Your task to perform on an android device: Set the phone to "Do not disturb". Image 0: 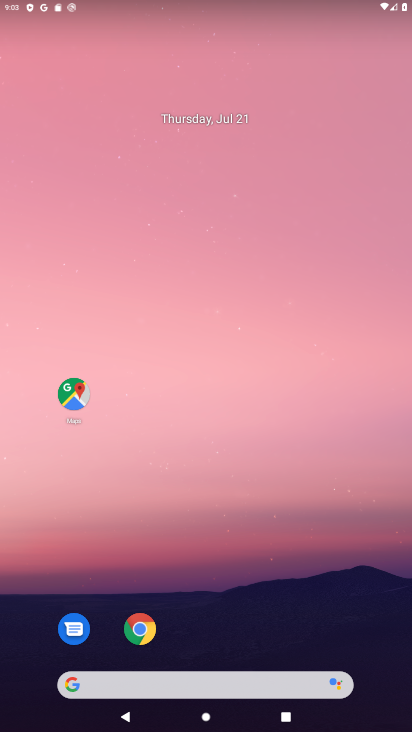
Step 0: drag from (246, 510) to (163, 154)
Your task to perform on an android device: Set the phone to "Do not disturb". Image 1: 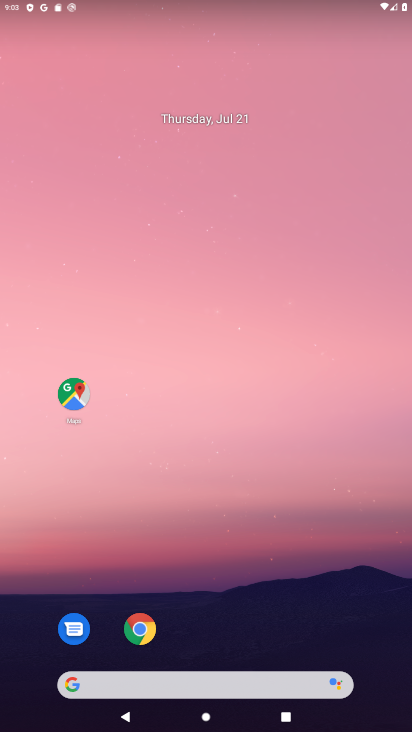
Step 1: drag from (204, 513) to (135, 106)
Your task to perform on an android device: Set the phone to "Do not disturb". Image 2: 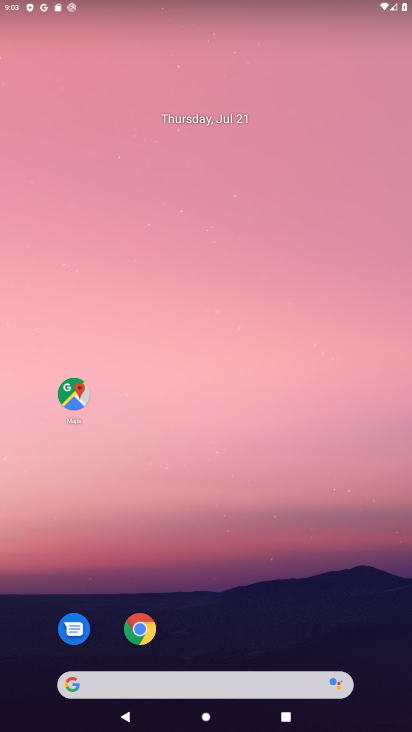
Step 2: drag from (216, 494) to (170, 49)
Your task to perform on an android device: Set the phone to "Do not disturb". Image 3: 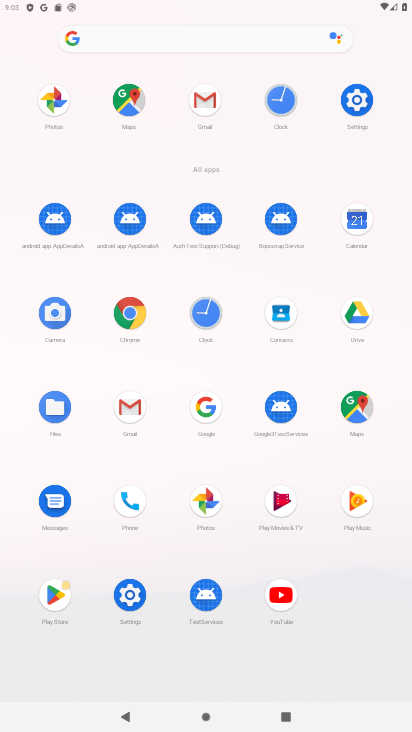
Step 3: drag from (172, 499) to (213, 73)
Your task to perform on an android device: Set the phone to "Do not disturb". Image 4: 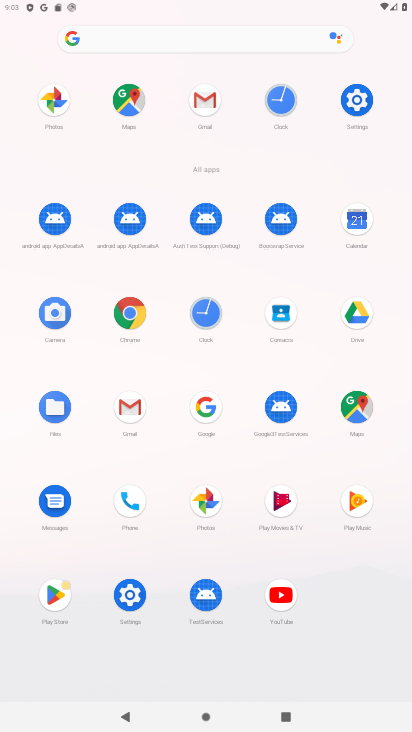
Step 4: click (353, 107)
Your task to perform on an android device: Set the phone to "Do not disturb". Image 5: 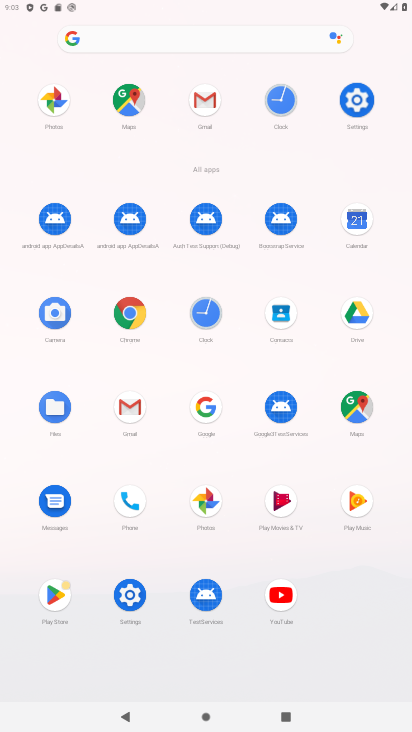
Step 5: click (353, 102)
Your task to perform on an android device: Set the phone to "Do not disturb". Image 6: 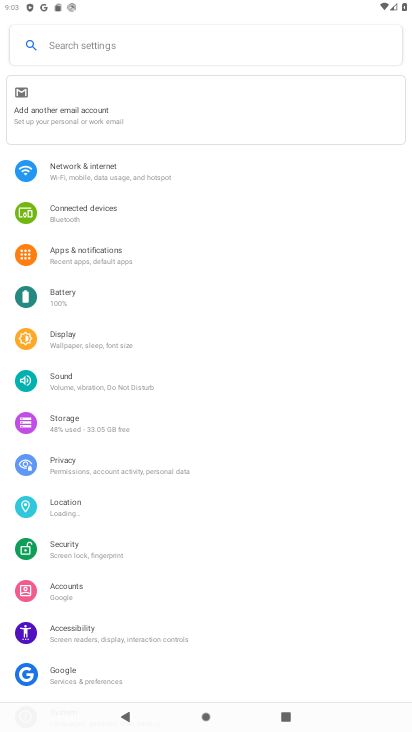
Step 6: click (67, 394)
Your task to perform on an android device: Set the phone to "Do not disturb". Image 7: 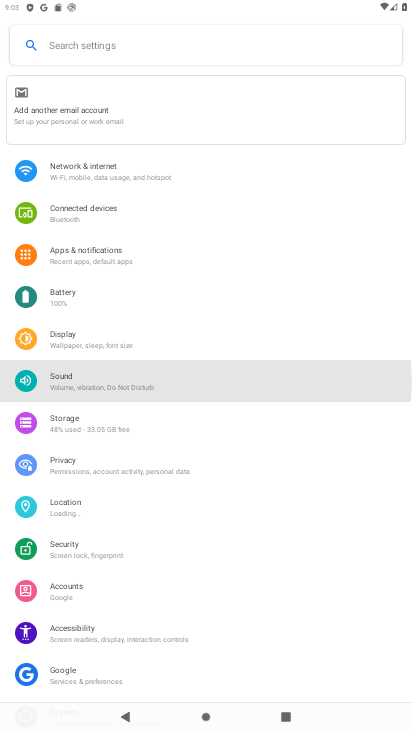
Step 7: click (67, 386)
Your task to perform on an android device: Set the phone to "Do not disturb". Image 8: 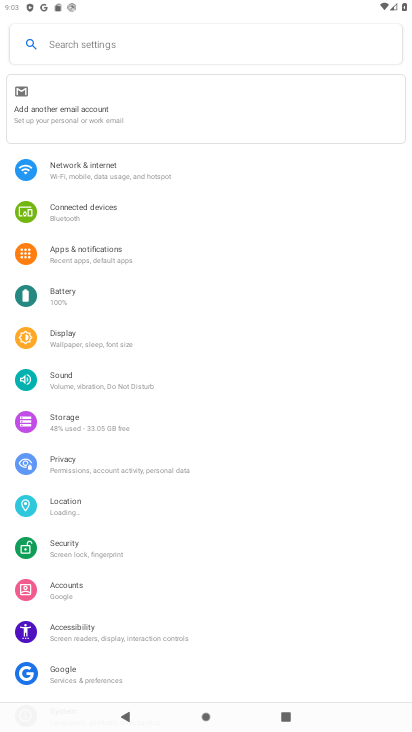
Step 8: click (67, 386)
Your task to perform on an android device: Set the phone to "Do not disturb". Image 9: 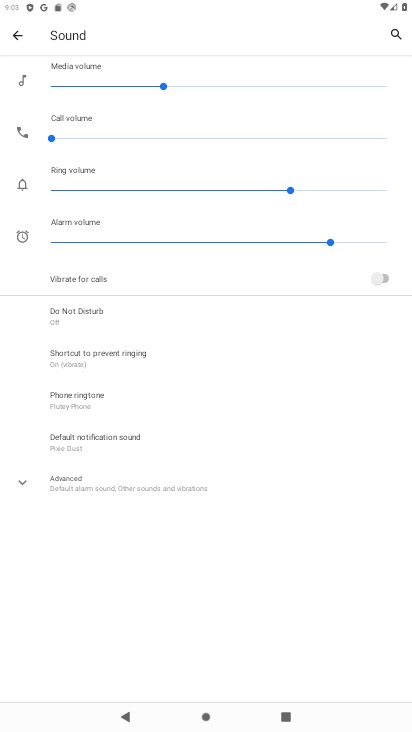
Step 9: click (78, 316)
Your task to perform on an android device: Set the phone to "Do not disturb". Image 10: 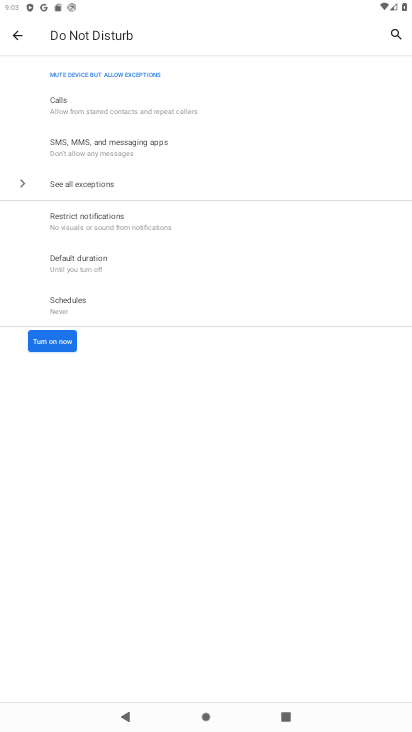
Step 10: task complete